Your task to perform on an android device: Set the phone to "Do not disturb". Image 0: 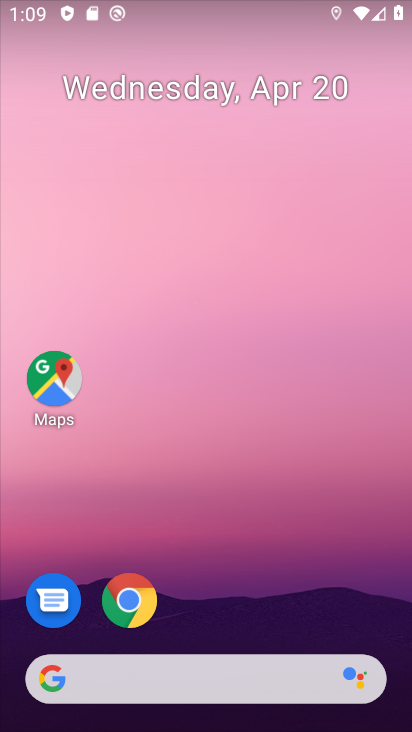
Step 0: drag from (360, 623) to (228, 45)
Your task to perform on an android device: Set the phone to "Do not disturb". Image 1: 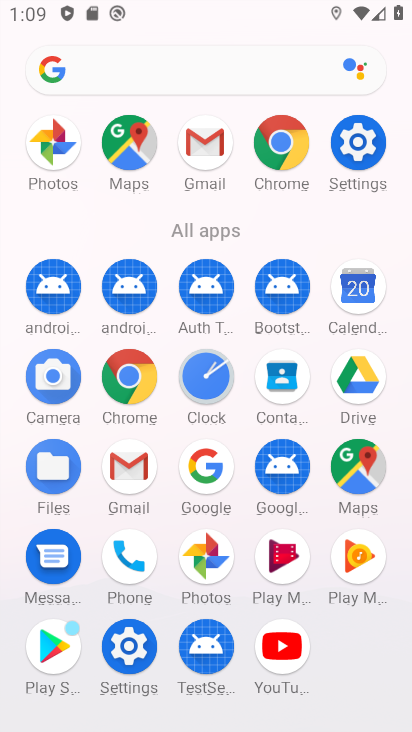
Step 1: click (128, 645)
Your task to perform on an android device: Set the phone to "Do not disturb". Image 2: 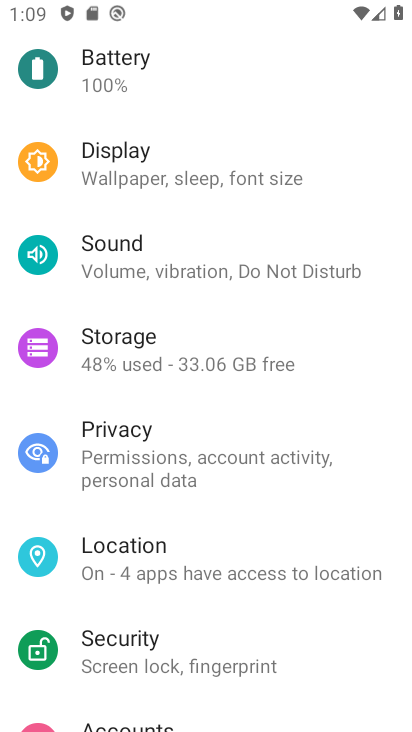
Step 2: click (148, 266)
Your task to perform on an android device: Set the phone to "Do not disturb". Image 3: 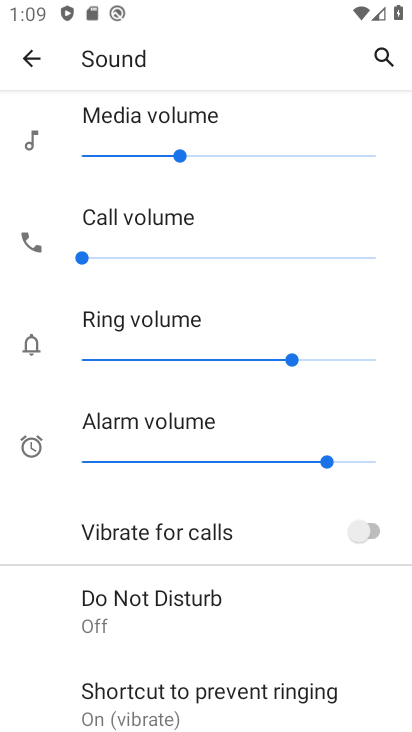
Step 3: click (134, 615)
Your task to perform on an android device: Set the phone to "Do not disturb". Image 4: 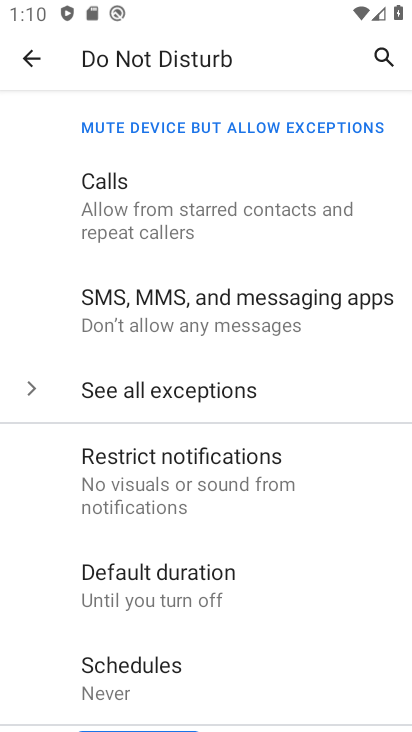
Step 4: drag from (296, 670) to (329, 413)
Your task to perform on an android device: Set the phone to "Do not disturb". Image 5: 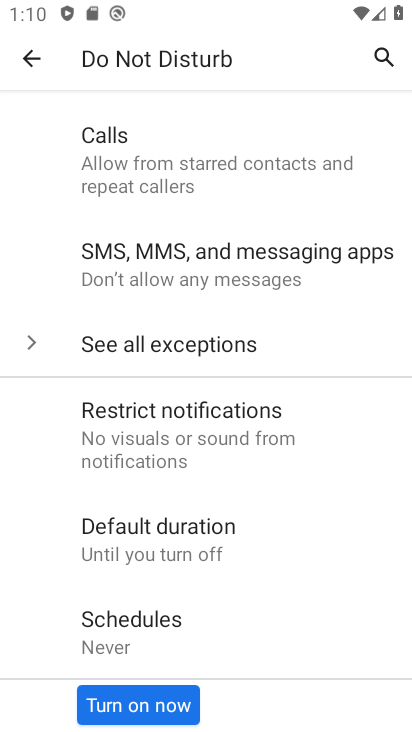
Step 5: click (116, 706)
Your task to perform on an android device: Set the phone to "Do not disturb". Image 6: 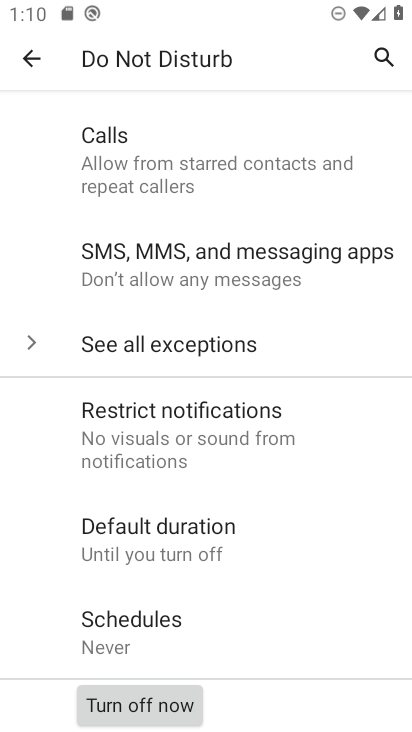
Step 6: task complete